Your task to perform on an android device: see creations saved in the google photos Image 0: 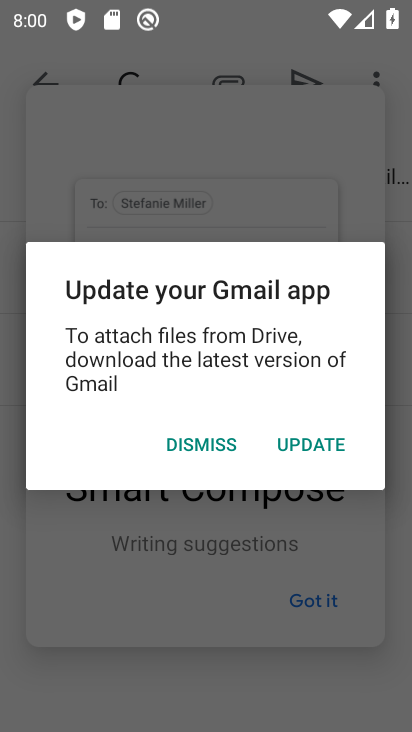
Step 0: press home button
Your task to perform on an android device: see creations saved in the google photos Image 1: 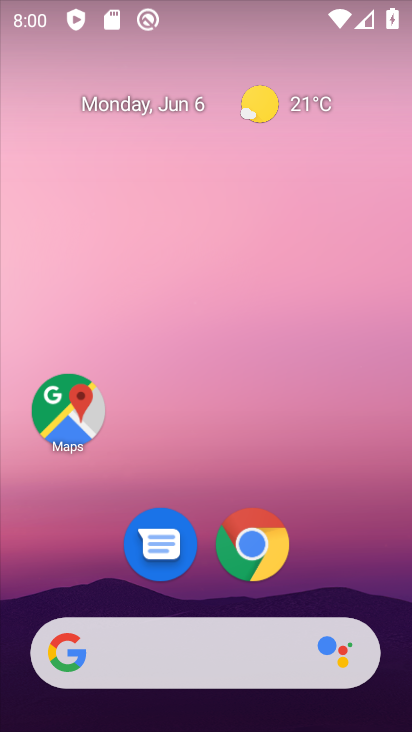
Step 1: drag from (175, 561) to (276, 94)
Your task to perform on an android device: see creations saved in the google photos Image 2: 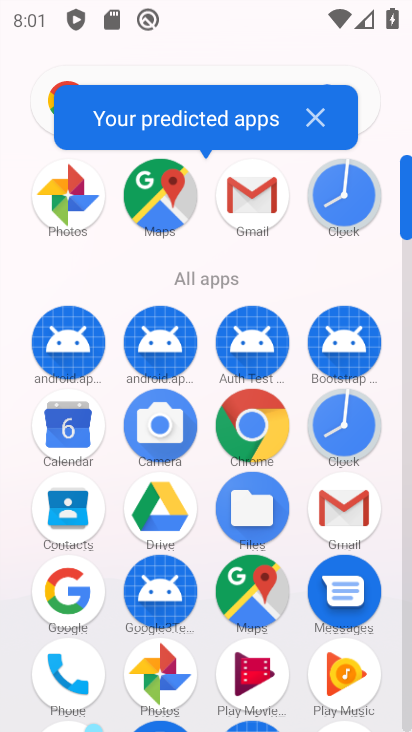
Step 2: click (167, 682)
Your task to perform on an android device: see creations saved in the google photos Image 3: 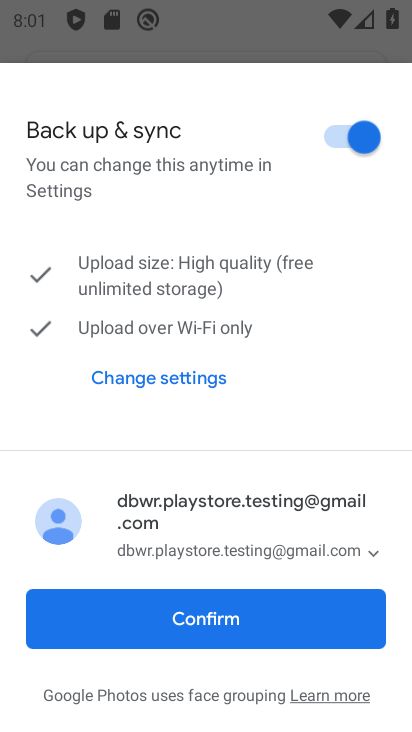
Step 3: click (200, 641)
Your task to perform on an android device: see creations saved in the google photos Image 4: 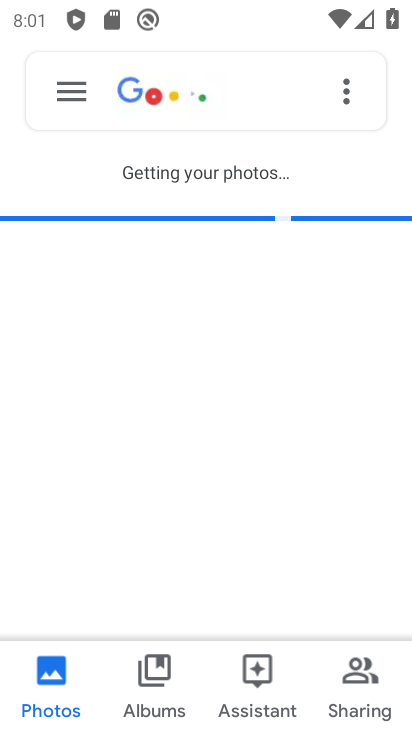
Step 4: click (213, 85)
Your task to perform on an android device: see creations saved in the google photos Image 5: 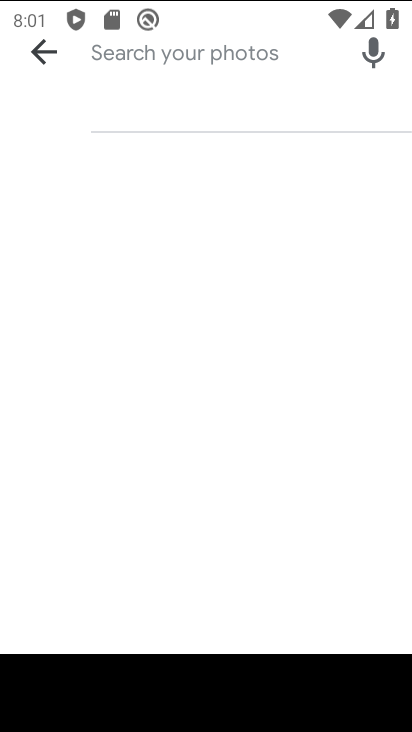
Step 5: type "creations "
Your task to perform on an android device: see creations saved in the google photos Image 6: 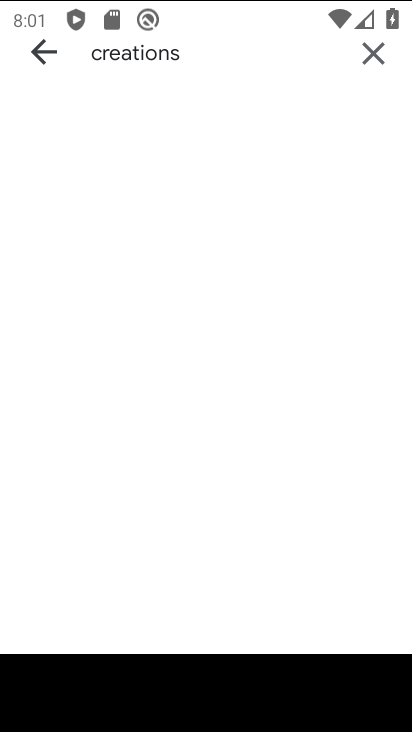
Step 6: click (372, 61)
Your task to perform on an android device: see creations saved in the google photos Image 7: 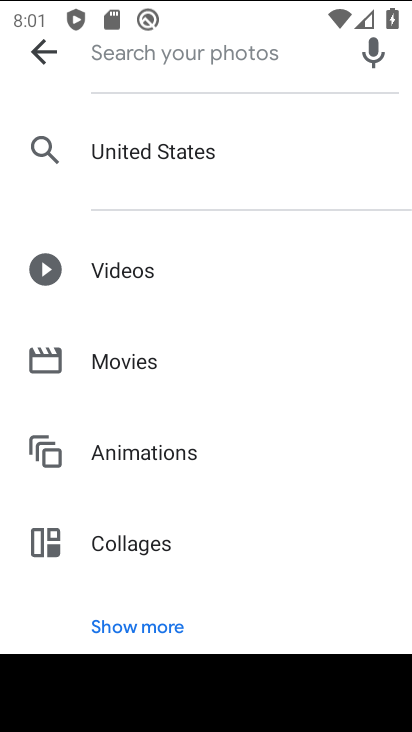
Step 7: type "creations"
Your task to perform on an android device: see creations saved in the google photos Image 8: 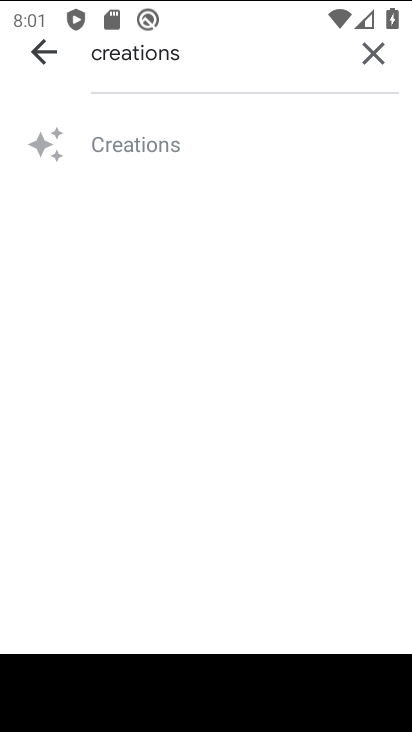
Step 8: click (127, 131)
Your task to perform on an android device: see creations saved in the google photos Image 9: 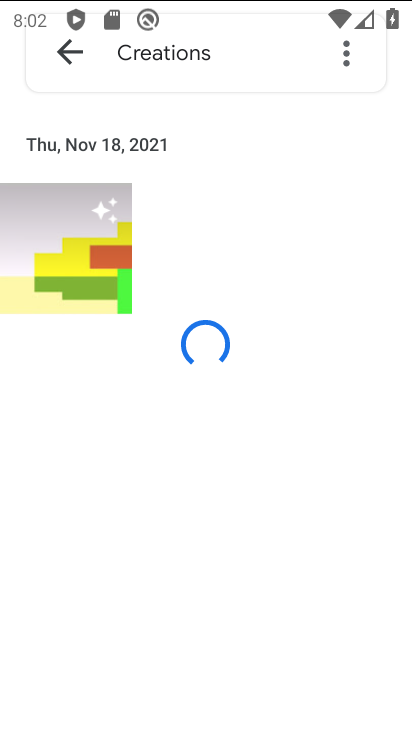
Step 9: task complete